Your task to perform on an android device: Go to eBay Image 0: 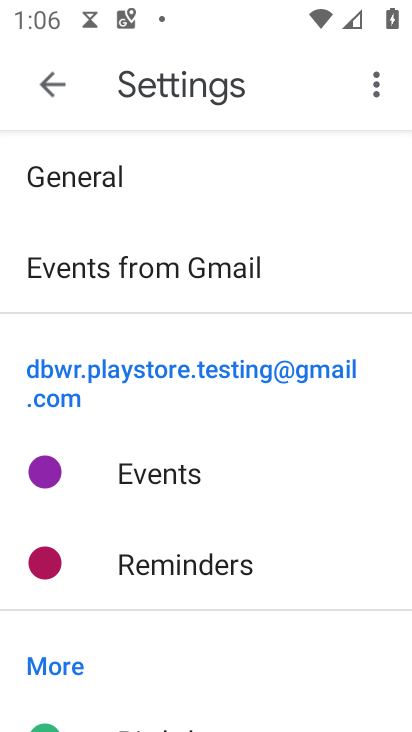
Step 0: press home button
Your task to perform on an android device: Go to eBay Image 1: 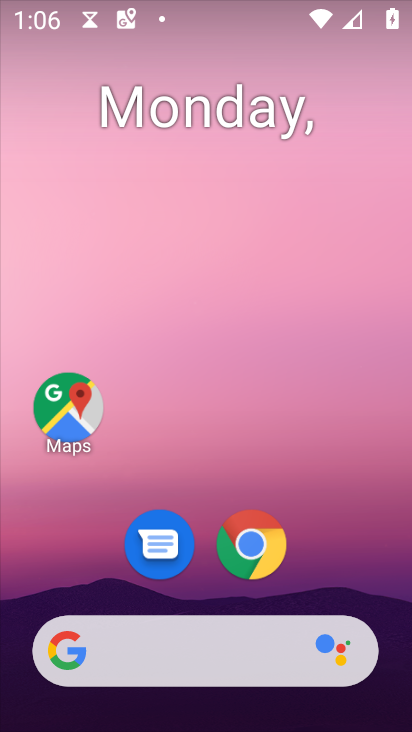
Step 1: click (277, 535)
Your task to perform on an android device: Go to eBay Image 2: 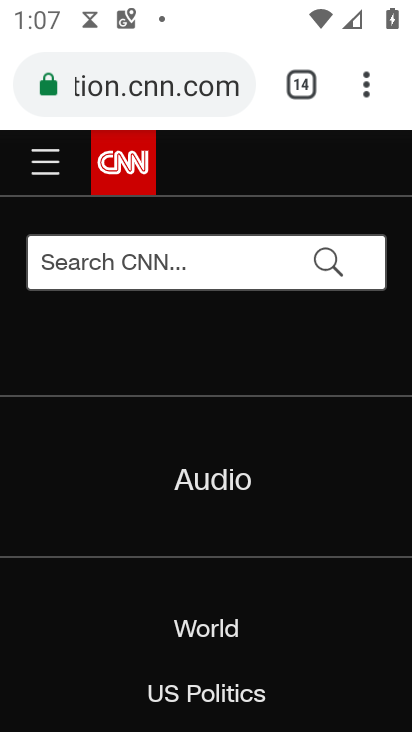
Step 2: click (367, 78)
Your task to perform on an android device: Go to eBay Image 3: 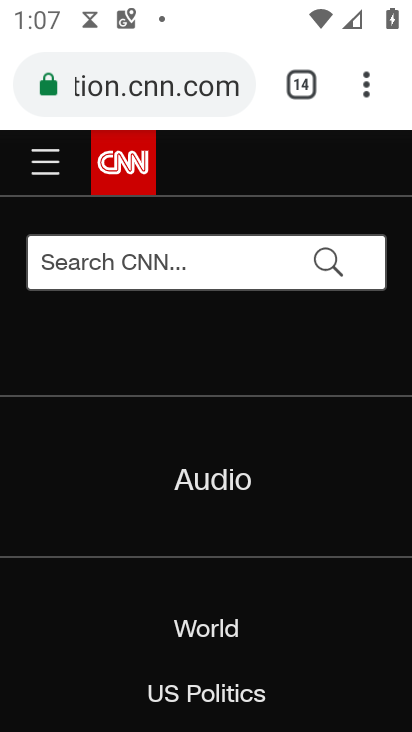
Step 3: click (365, 76)
Your task to perform on an android device: Go to eBay Image 4: 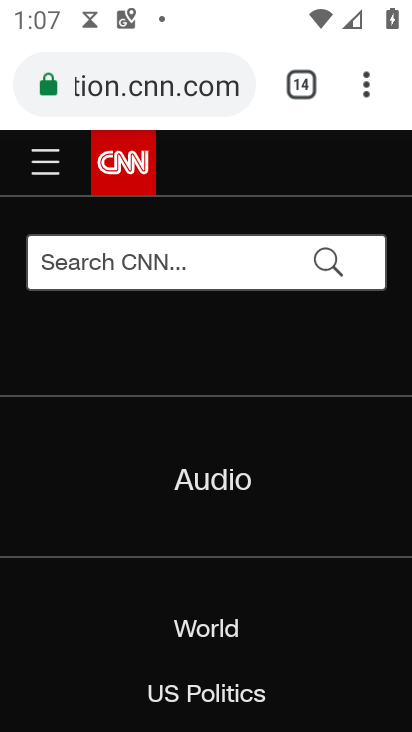
Step 4: click (351, 89)
Your task to perform on an android device: Go to eBay Image 5: 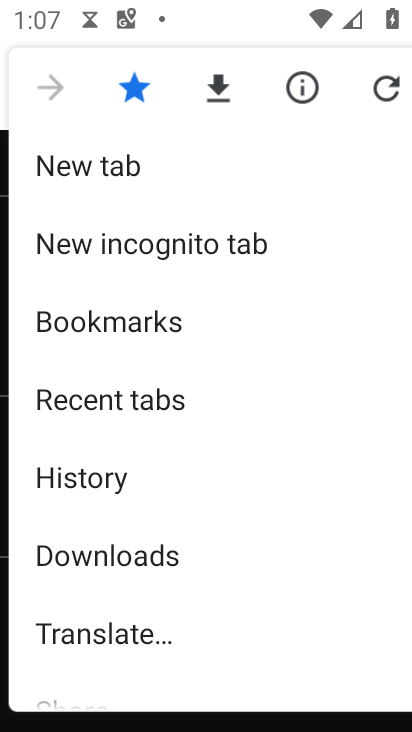
Step 5: click (101, 189)
Your task to perform on an android device: Go to eBay Image 6: 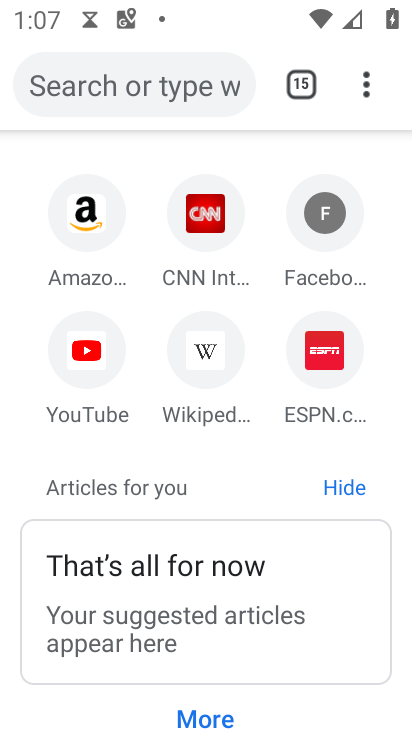
Step 6: click (196, 67)
Your task to perform on an android device: Go to eBay Image 7: 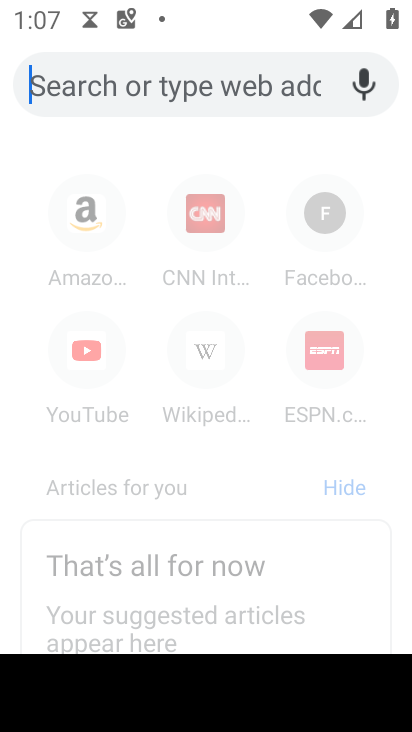
Step 7: type " eBay"
Your task to perform on an android device: Go to eBay Image 8: 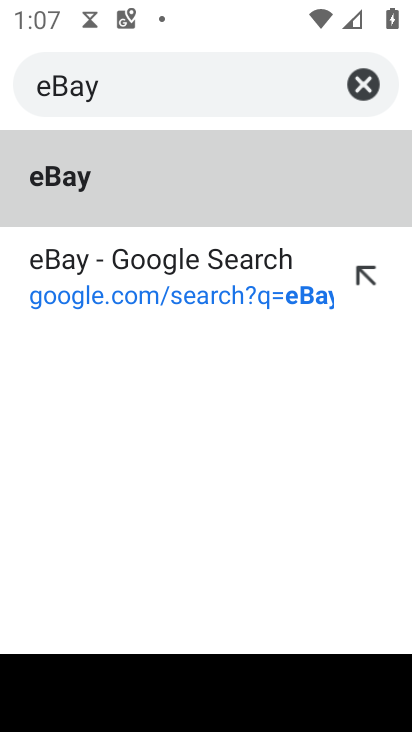
Step 8: click (200, 175)
Your task to perform on an android device: Go to eBay Image 9: 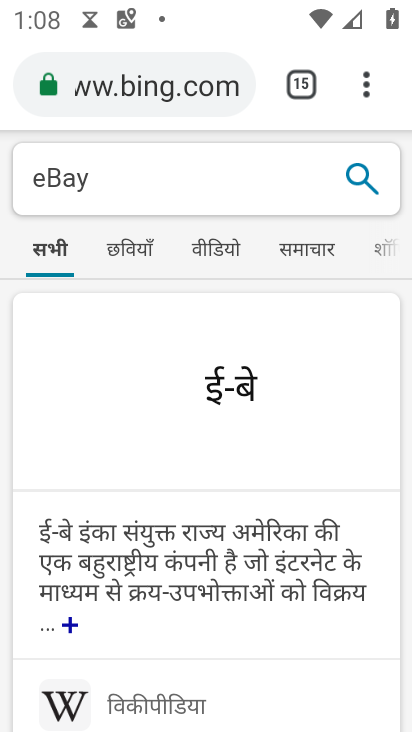
Step 9: task complete